Your task to perform on an android device: turn off notifications settings in the gmail app Image 0: 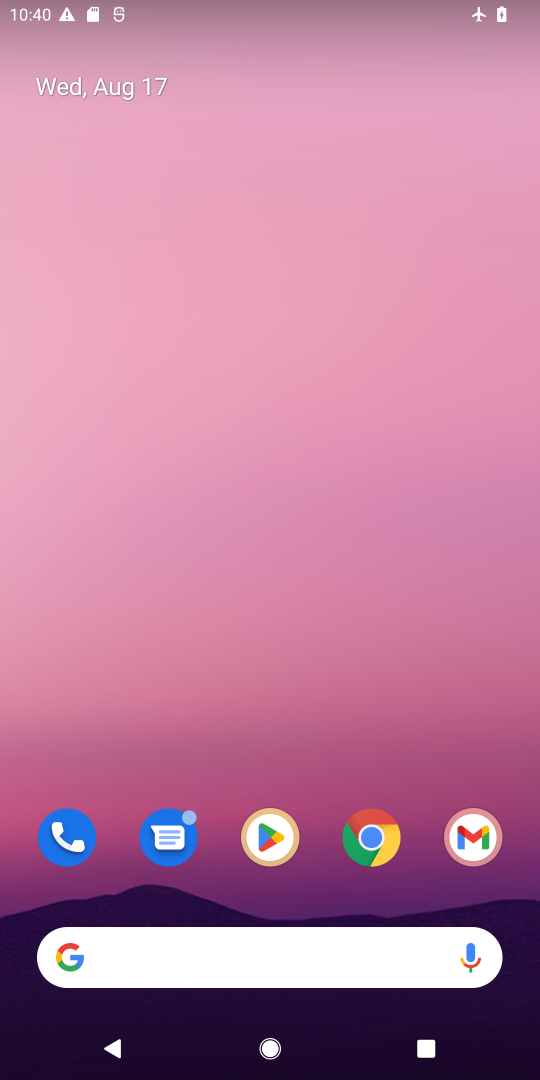
Step 0: drag from (253, 952) to (330, 367)
Your task to perform on an android device: turn off notifications settings in the gmail app Image 1: 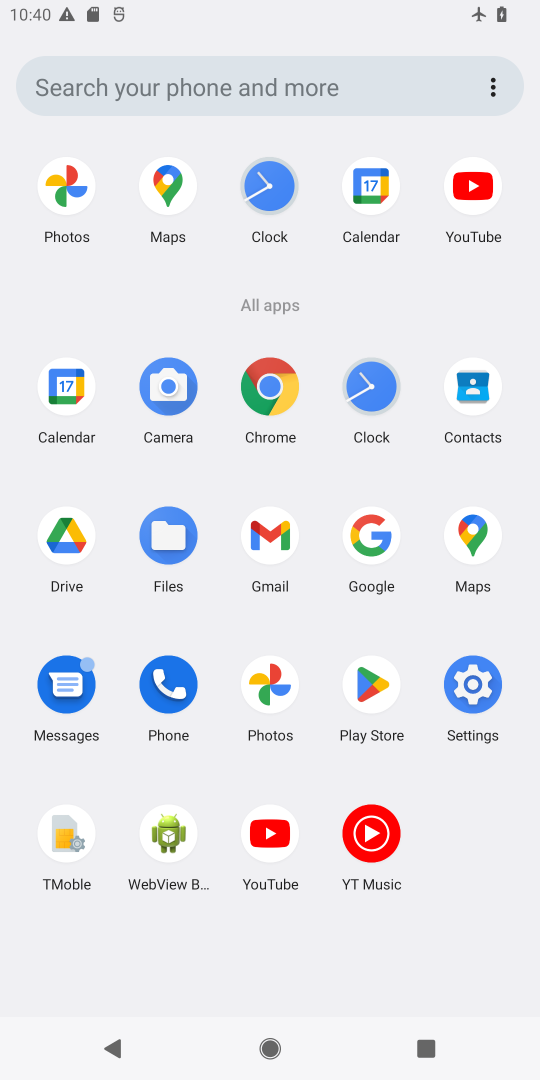
Step 1: click (270, 532)
Your task to perform on an android device: turn off notifications settings in the gmail app Image 2: 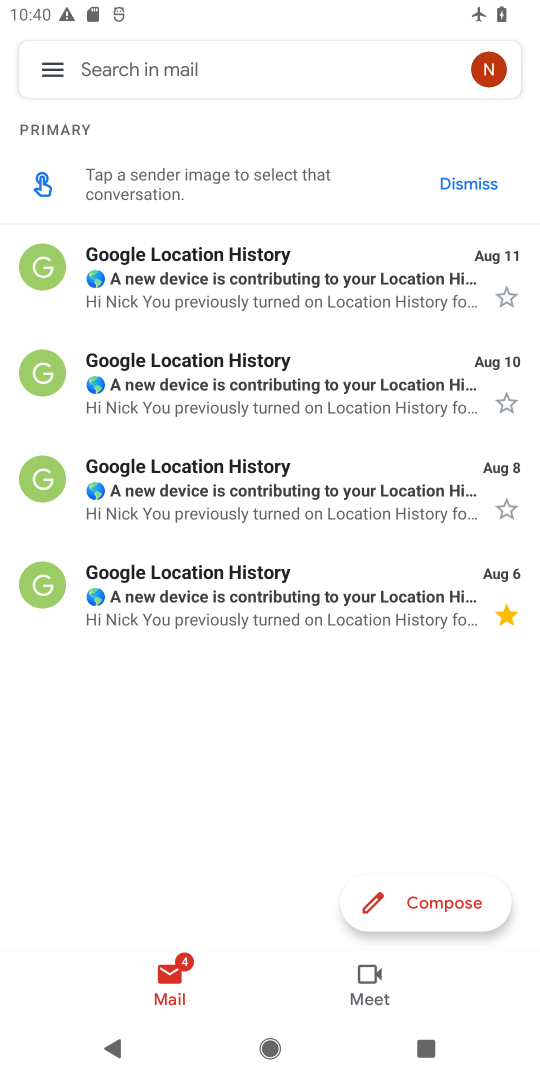
Step 2: click (52, 69)
Your task to perform on an android device: turn off notifications settings in the gmail app Image 3: 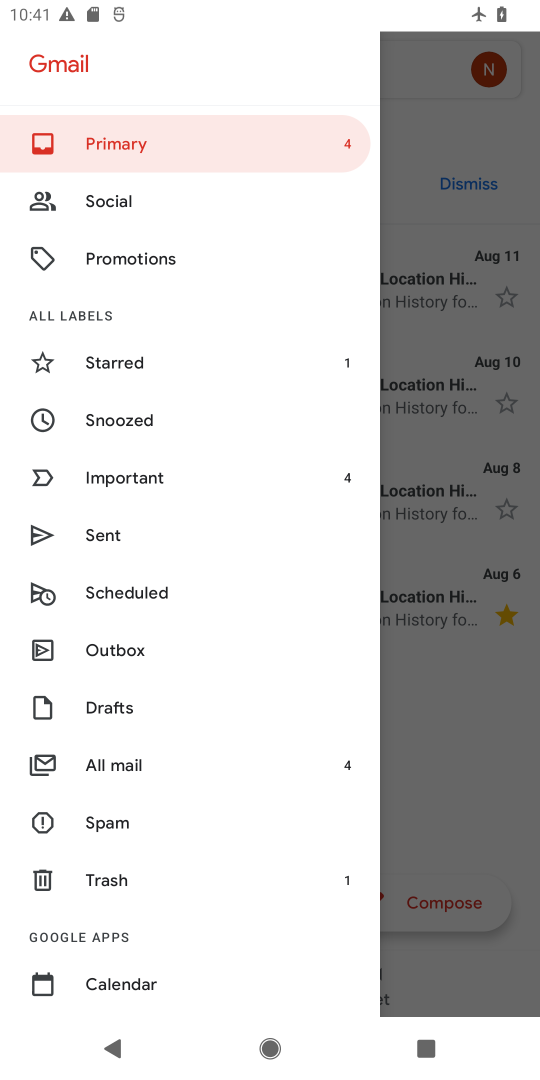
Step 3: drag from (149, 897) to (188, 729)
Your task to perform on an android device: turn off notifications settings in the gmail app Image 4: 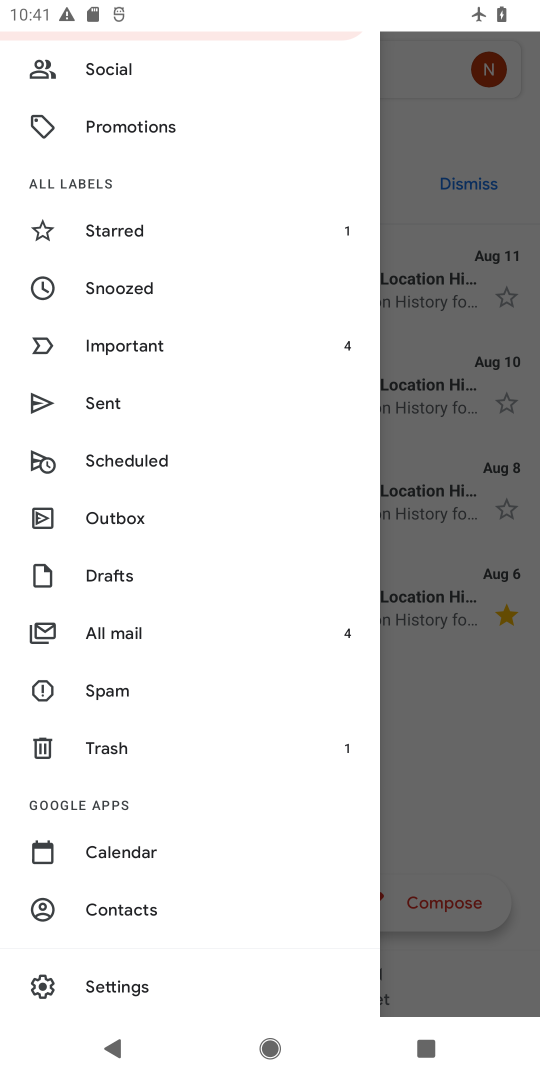
Step 4: click (134, 987)
Your task to perform on an android device: turn off notifications settings in the gmail app Image 5: 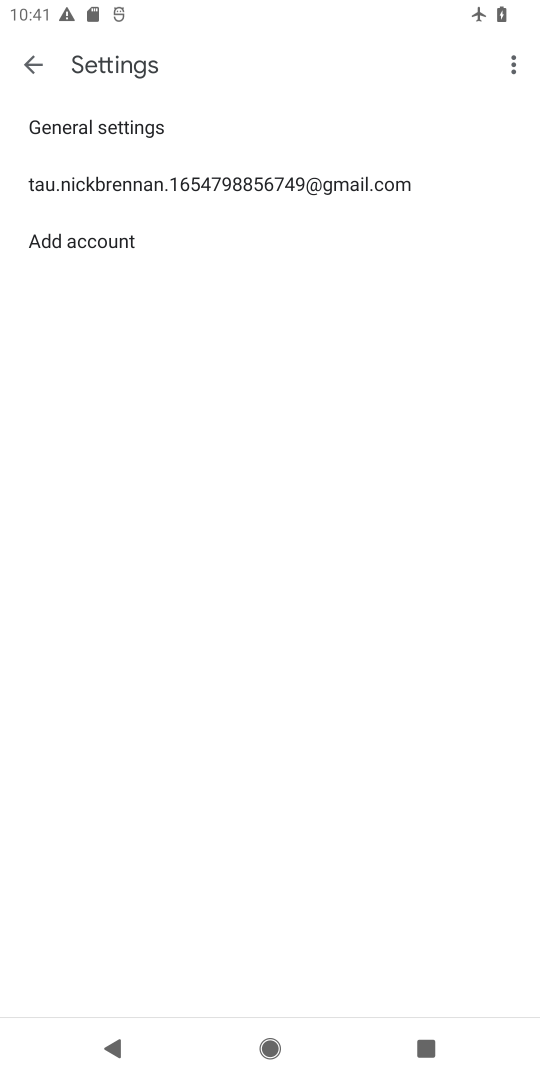
Step 5: click (115, 131)
Your task to perform on an android device: turn off notifications settings in the gmail app Image 6: 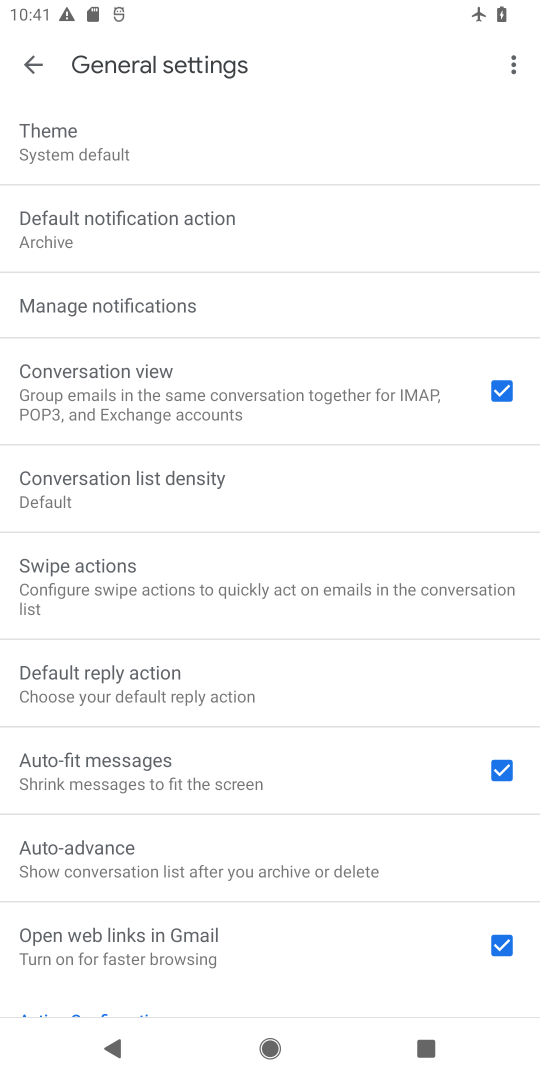
Step 6: click (167, 309)
Your task to perform on an android device: turn off notifications settings in the gmail app Image 7: 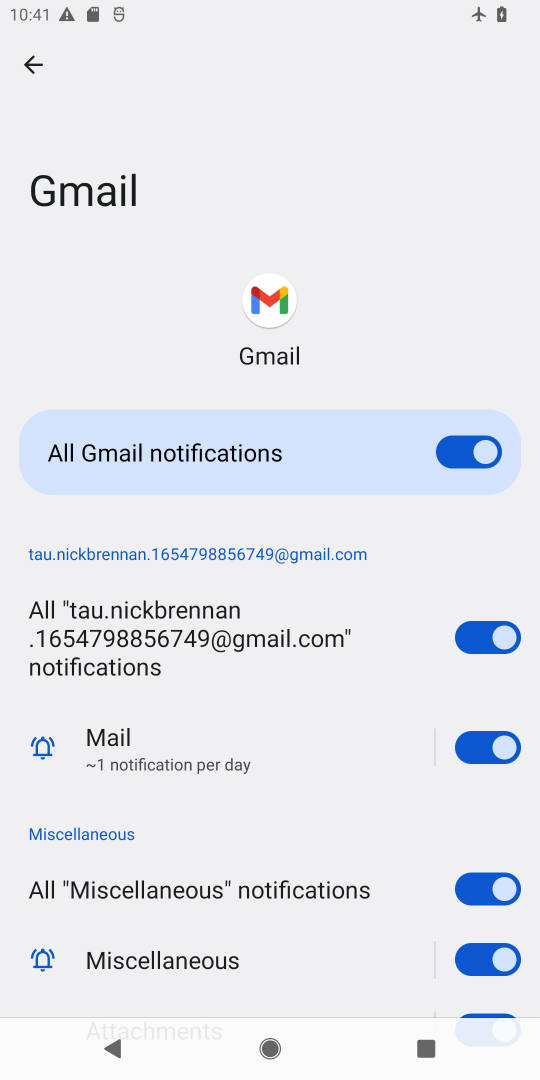
Step 7: click (449, 460)
Your task to perform on an android device: turn off notifications settings in the gmail app Image 8: 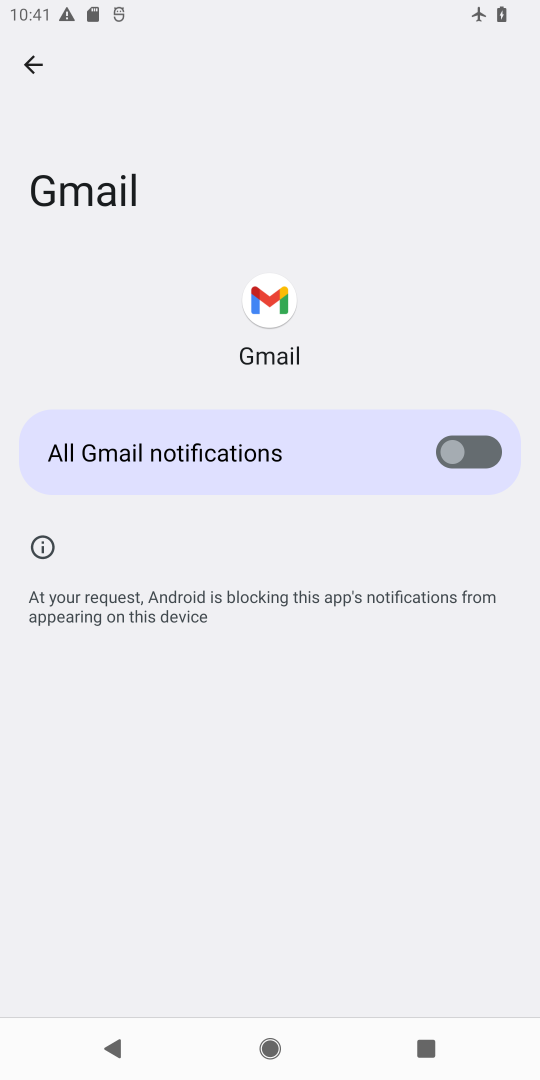
Step 8: task complete